Your task to perform on an android device: change your default location settings in chrome Image 0: 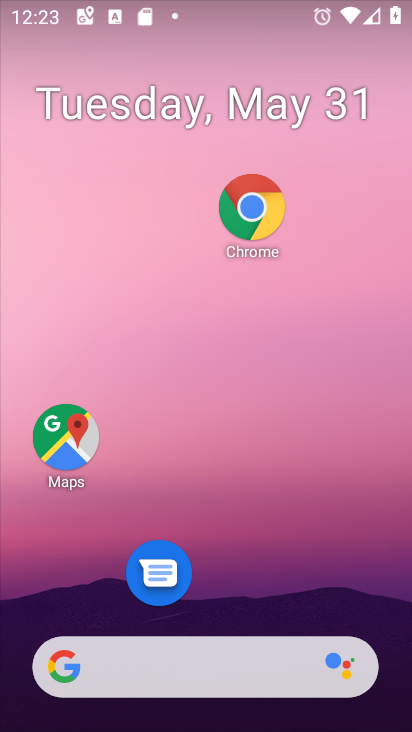
Step 0: drag from (226, 688) to (229, 8)
Your task to perform on an android device: change your default location settings in chrome Image 1: 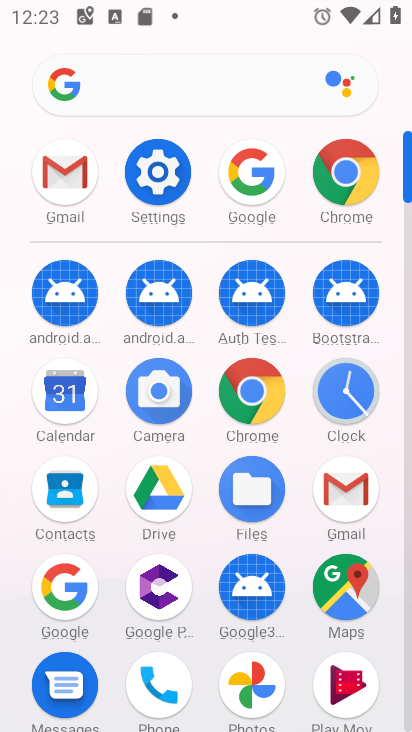
Step 1: click (258, 406)
Your task to perform on an android device: change your default location settings in chrome Image 2: 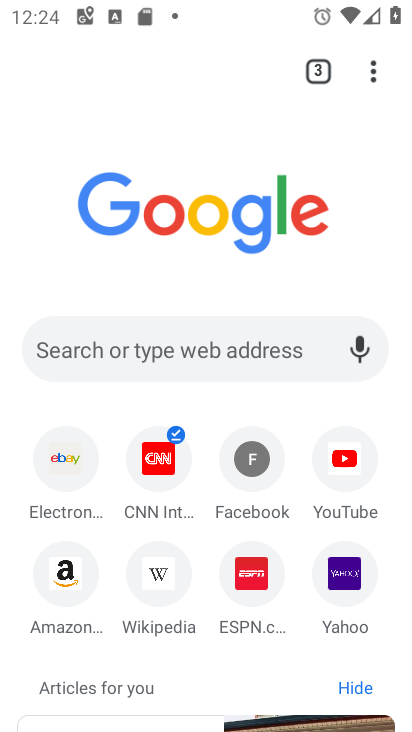
Step 2: click (375, 62)
Your task to perform on an android device: change your default location settings in chrome Image 3: 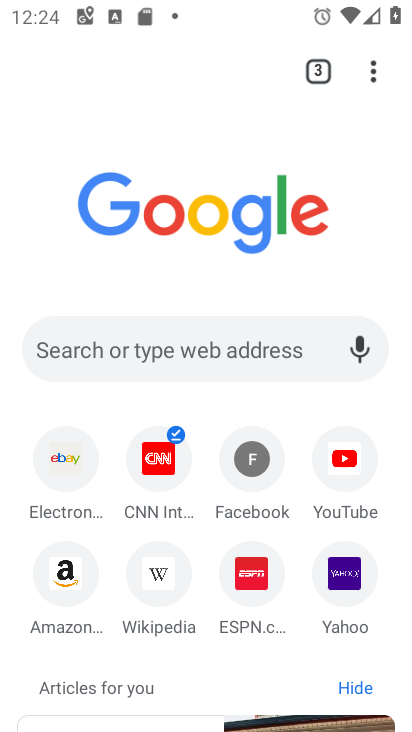
Step 3: click (374, 77)
Your task to perform on an android device: change your default location settings in chrome Image 4: 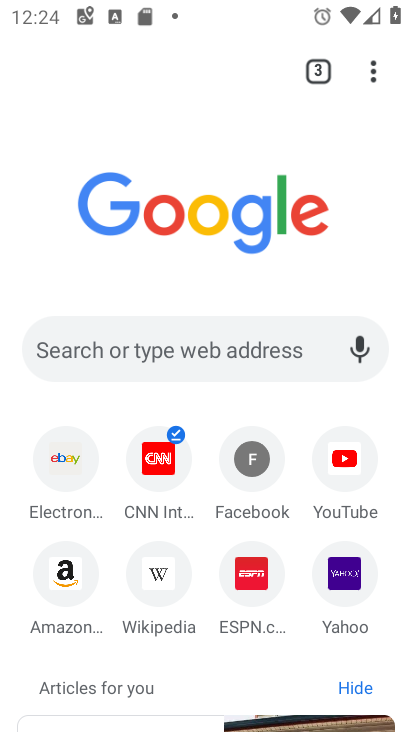
Step 4: click (364, 69)
Your task to perform on an android device: change your default location settings in chrome Image 5: 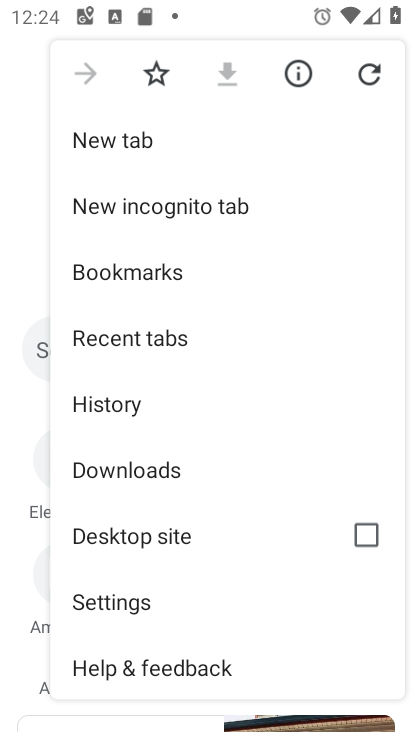
Step 5: click (170, 602)
Your task to perform on an android device: change your default location settings in chrome Image 6: 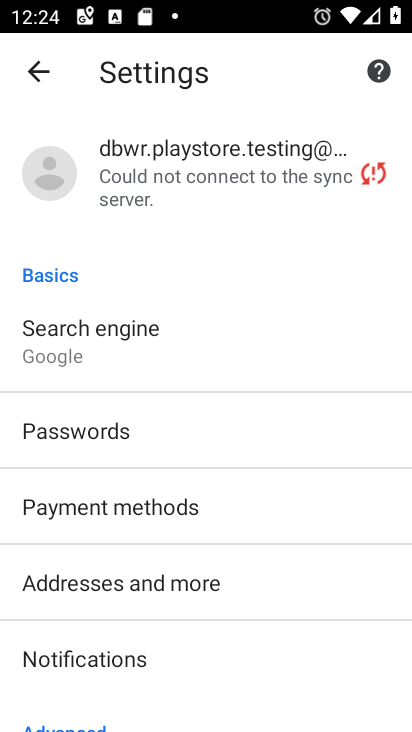
Step 6: drag from (138, 523) to (146, 346)
Your task to perform on an android device: change your default location settings in chrome Image 7: 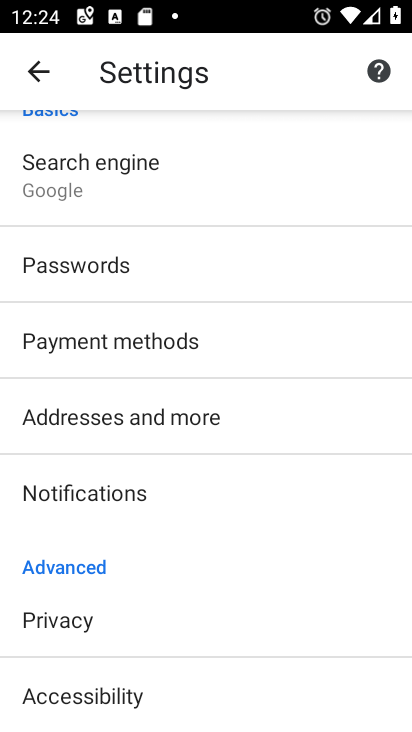
Step 7: drag from (120, 628) to (169, 264)
Your task to perform on an android device: change your default location settings in chrome Image 8: 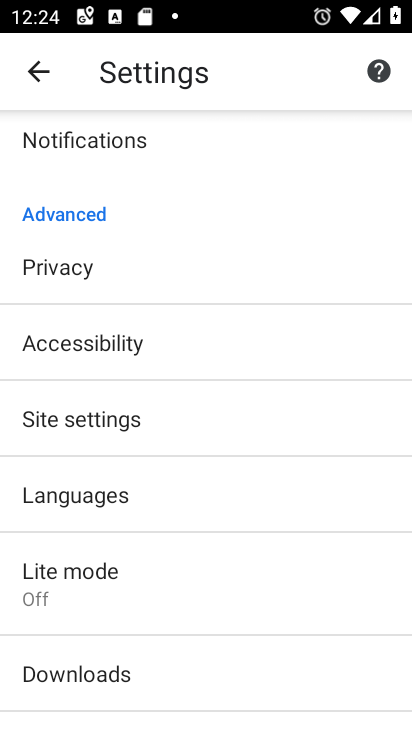
Step 8: click (128, 415)
Your task to perform on an android device: change your default location settings in chrome Image 9: 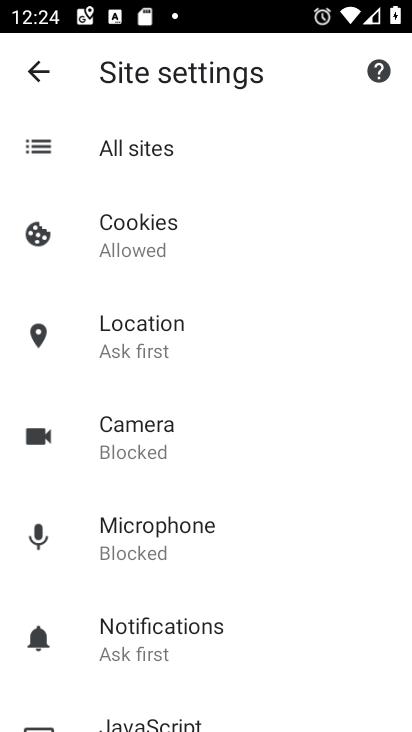
Step 9: drag from (166, 509) to (167, 360)
Your task to perform on an android device: change your default location settings in chrome Image 10: 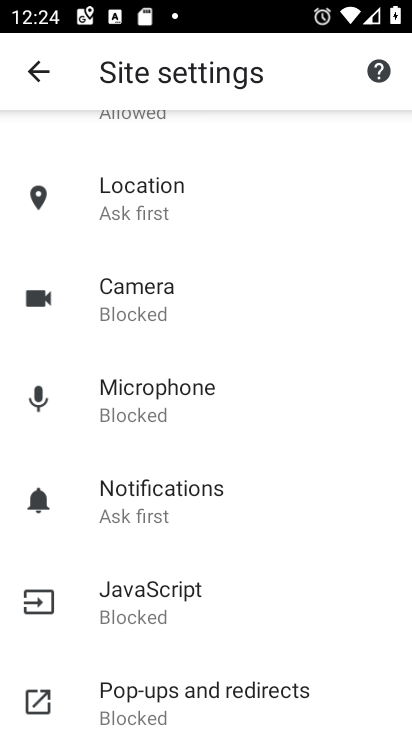
Step 10: drag from (174, 479) to (195, 341)
Your task to perform on an android device: change your default location settings in chrome Image 11: 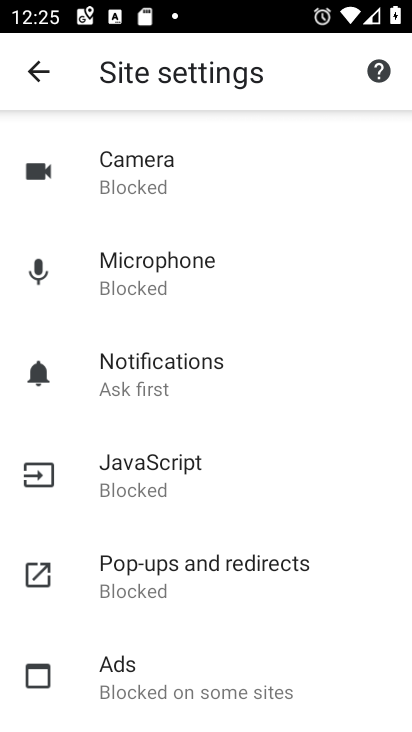
Step 11: drag from (218, 328) to (220, 727)
Your task to perform on an android device: change your default location settings in chrome Image 12: 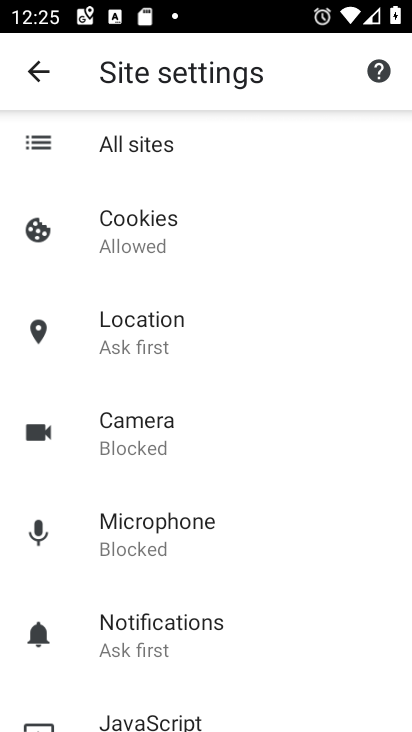
Step 12: click (190, 338)
Your task to perform on an android device: change your default location settings in chrome Image 13: 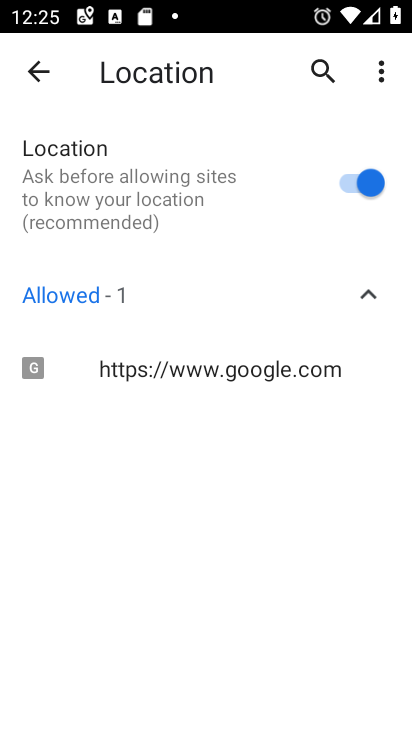
Step 13: click (346, 183)
Your task to perform on an android device: change your default location settings in chrome Image 14: 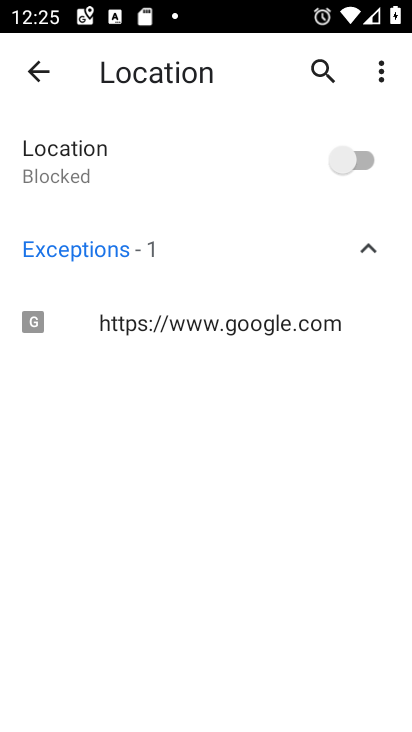
Step 14: task complete